Your task to perform on an android device: Go to Maps Image 0: 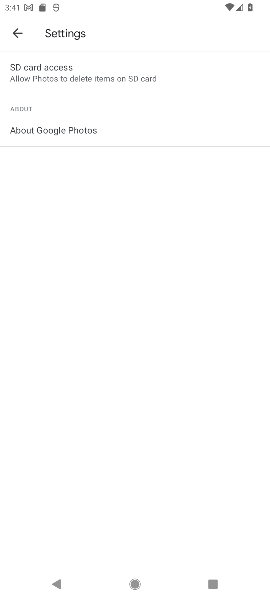
Step 0: press home button
Your task to perform on an android device: Go to Maps Image 1: 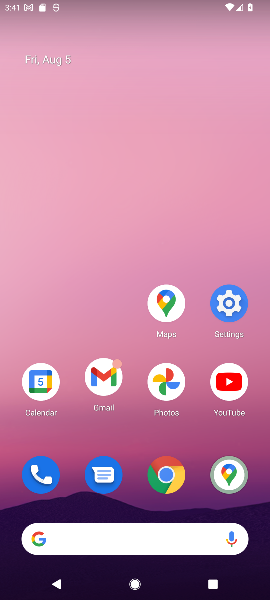
Step 1: click (160, 296)
Your task to perform on an android device: Go to Maps Image 2: 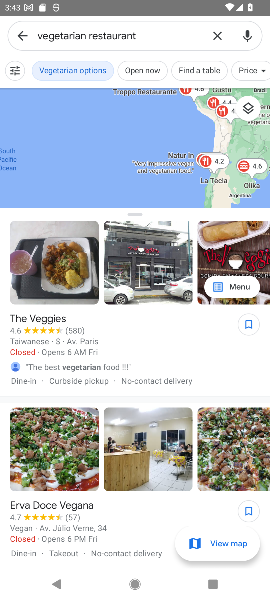
Step 2: click (209, 37)
Your task to perform on an android device: Go to Maps Image 3: 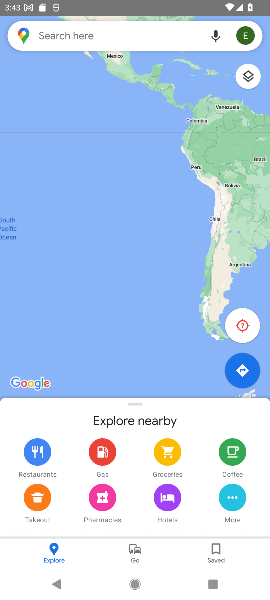
Step 3: click (17, 33)
Your task to perform on an android device: Go to Maps Image 4: 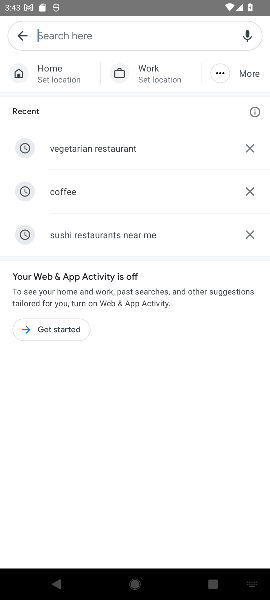
Step 4: task complete